Your task to perform on an android device: Go to Yahoo.com Image 0: 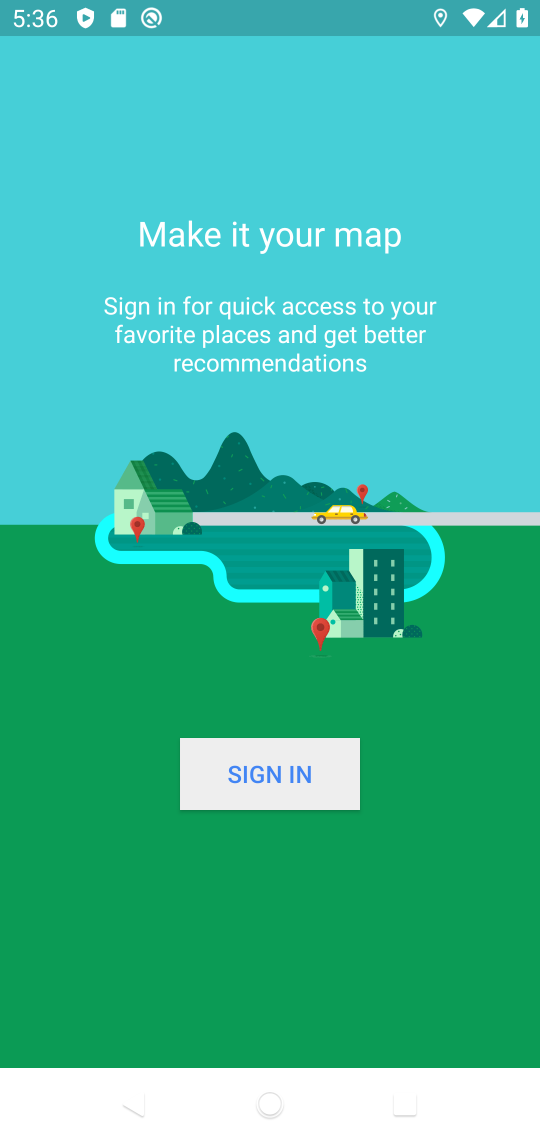
Step 0: press home button
Your task to perform on an android device: Go to Yahoo.com Image 1: 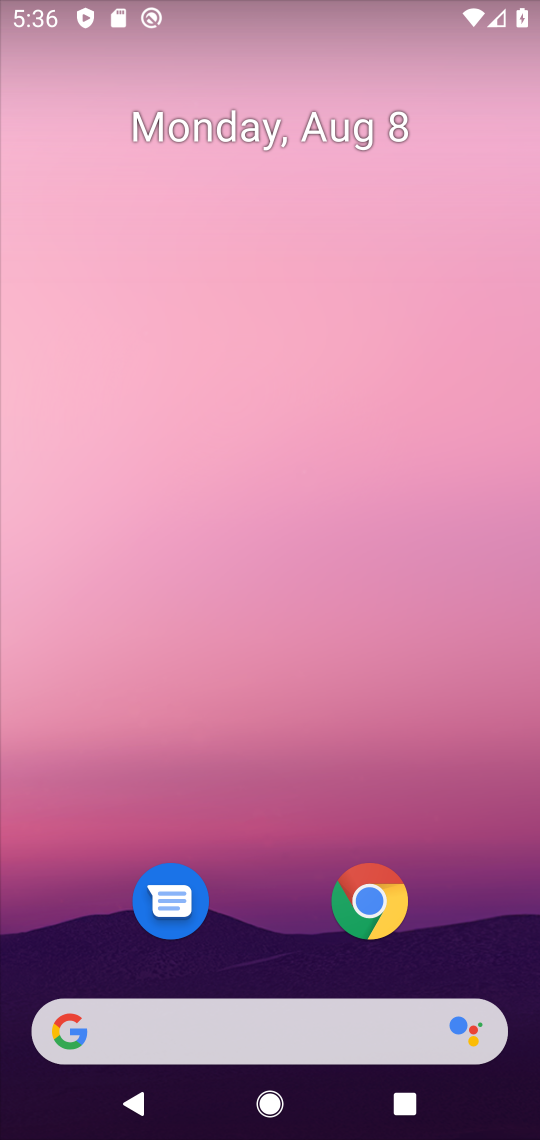
Step 1: click (388, 894)
Your task to perform on an android device: Go to Yahoo.com Image 2: 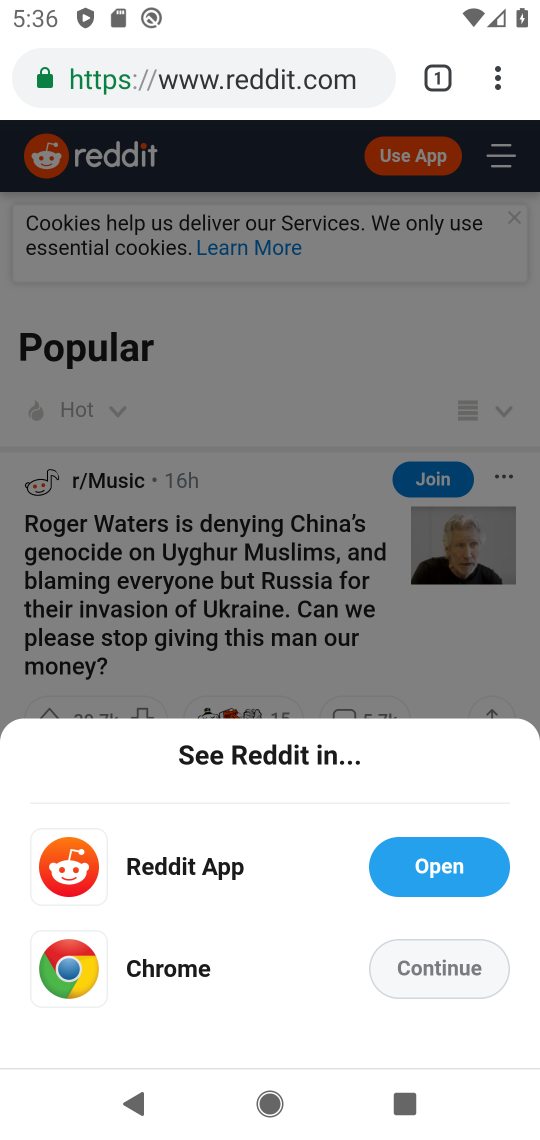
Step 2: click (263, 83)
Your task to perform on an android device: Go to Yahoo.com Image 3: 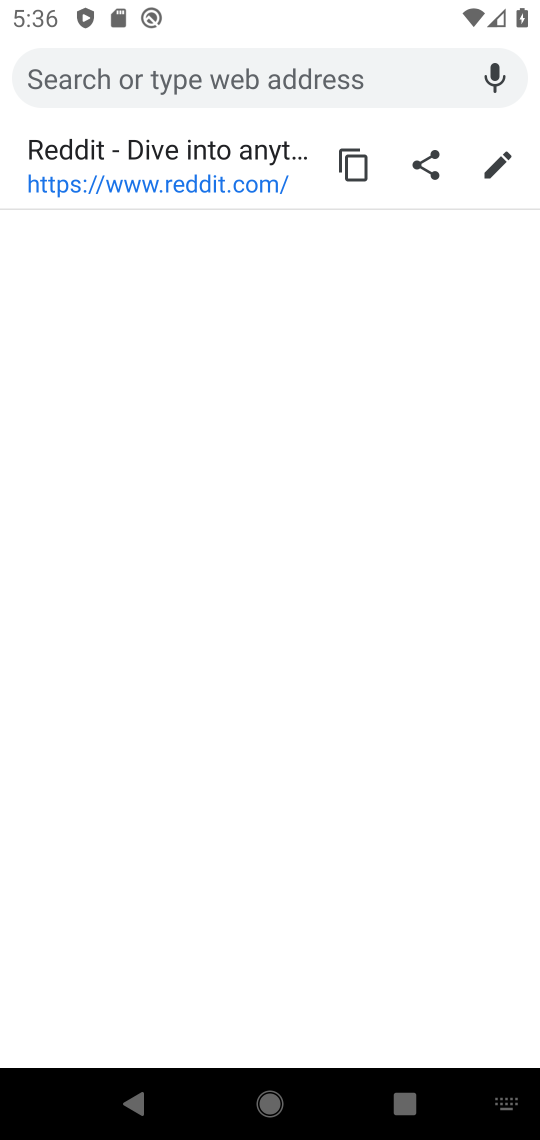
Step 3: type "yahoo.com"
Your task to perform on an android device: Go to Yahoo.com Image 4: 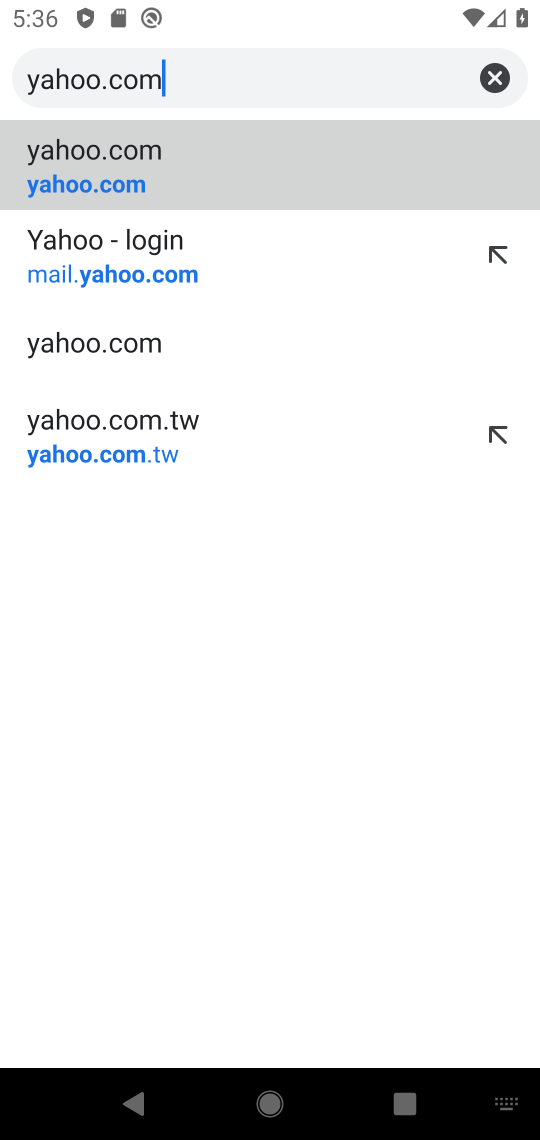
Step 4: click (190, 158)
Your task to perform on an android device: Go to Yahoo.com Image 5: 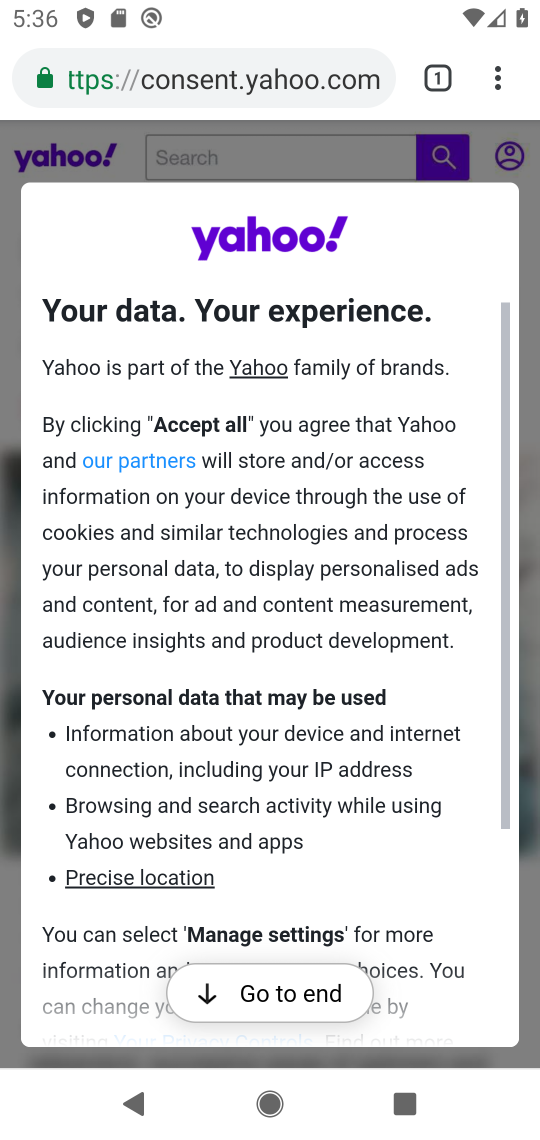
Step 5: task complete